Your task to perform on an android device: Clear all items from cart on target. Add "macbook pro 15 inch" to the cart on target Image 0: 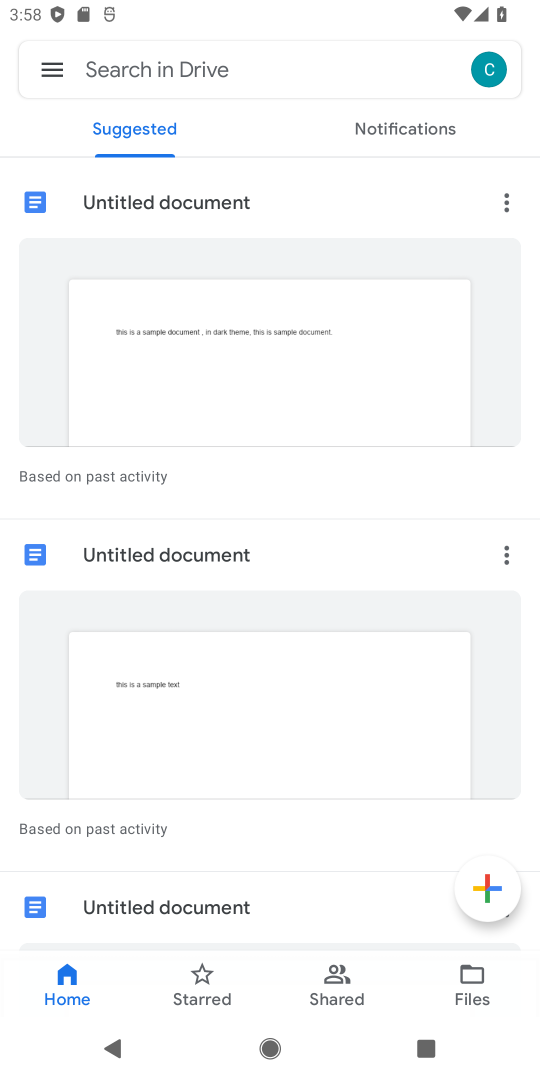
Step 0: press home button
Your task to perform on an android device: Clear all items from cart on target. Add "macbook pro 15 inch" to the cart on target Image 1: 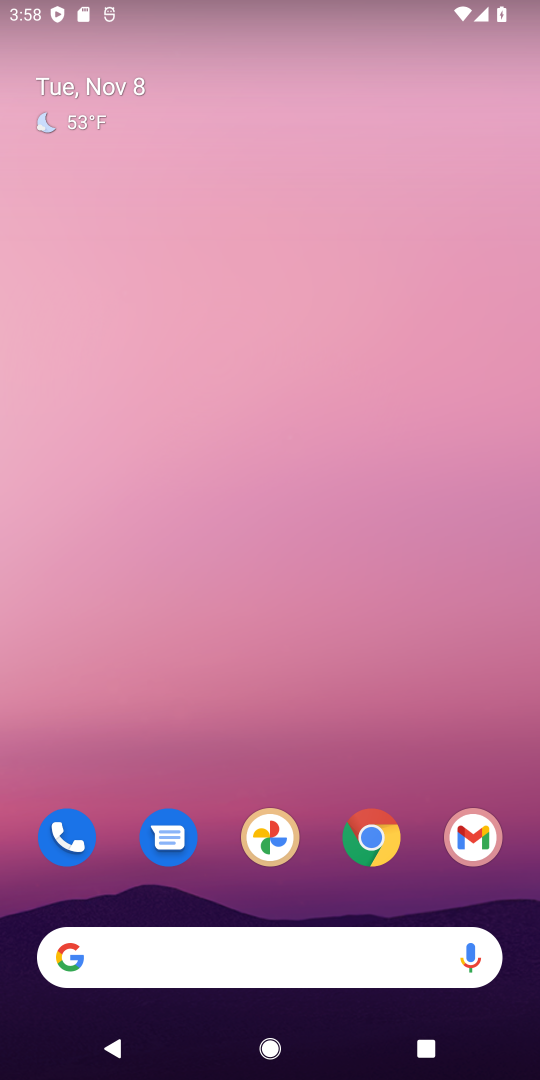
Step 1: click (380, 843)
Your task to perform on an android device: Clear all items from cart on target. Add "macbook pro 15 inch" to the cart on target Image 2: 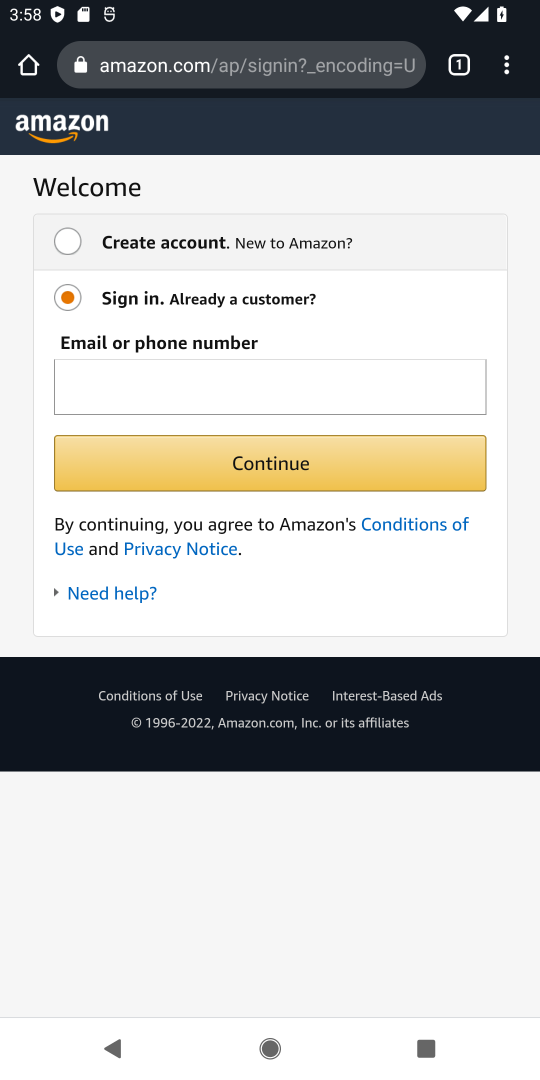
Step 2: click (140, 78)
Your task to perform on an android device: Clear all items from cart on target. Add "macbook pro 15 inch" to the cart on target Image 3: 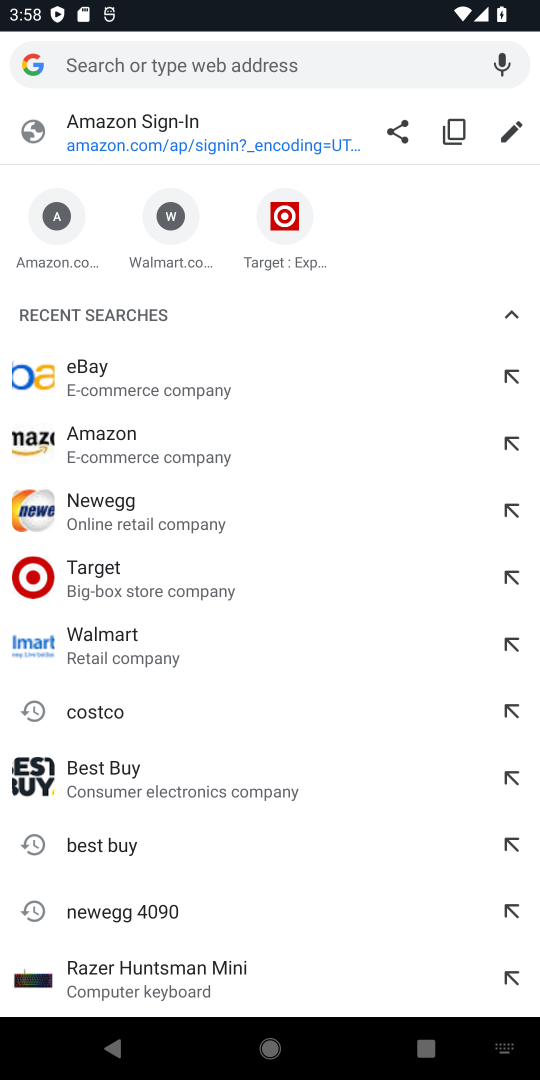
Step 3: click (121, 594)
Your task to perform on an android device: Clear all items from cart on target. Add "macbook pro 15 inch" to the cart on target Image 4: 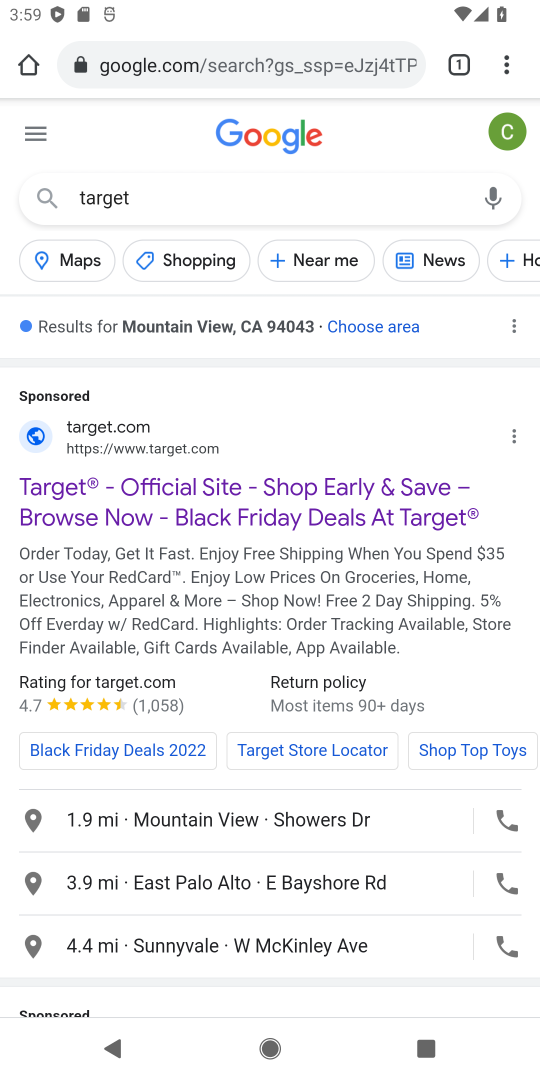
Step 4: click (46, 477)
Your task to perform on an android device: Clear all items from cart on target. Add "macbook pro 15 inch" to the cart on target Image 5: 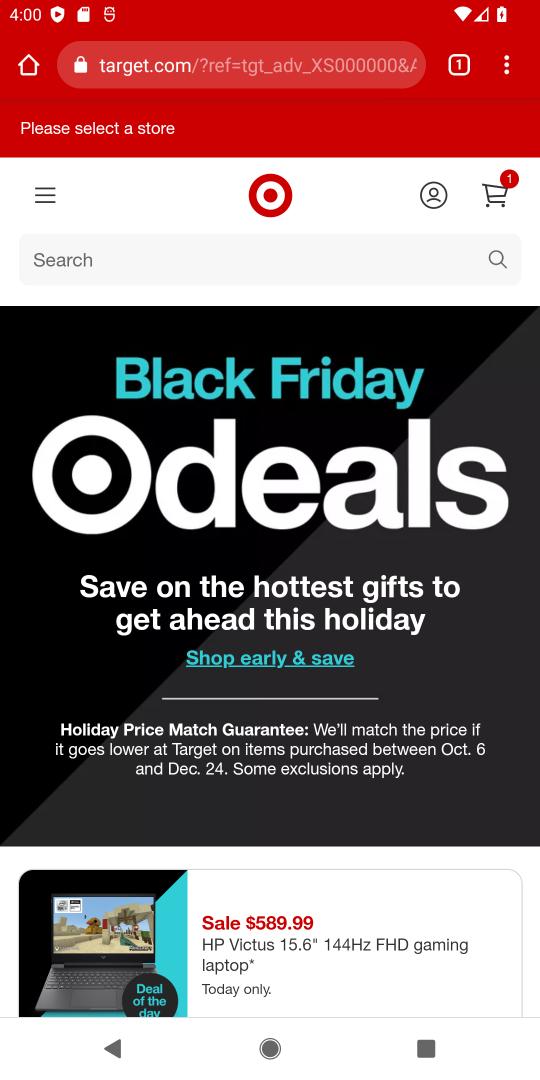
Step 5: click (504, 261)
Your task to perform on an android device: Clear all items from cart on target. Add "macbook pro 15 inch" to the cart on target Image 6: 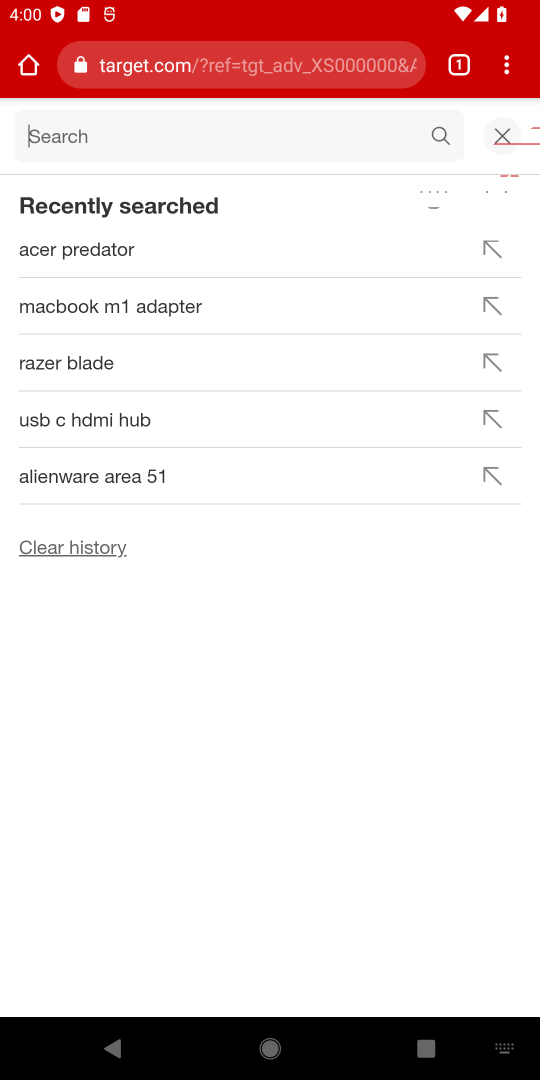
Step 6: type "macbook pro 15"
Your task to perform on an android device: Clear all items from cart on target. Add "macbook pro 15 inch" to the cart on target Image 7: 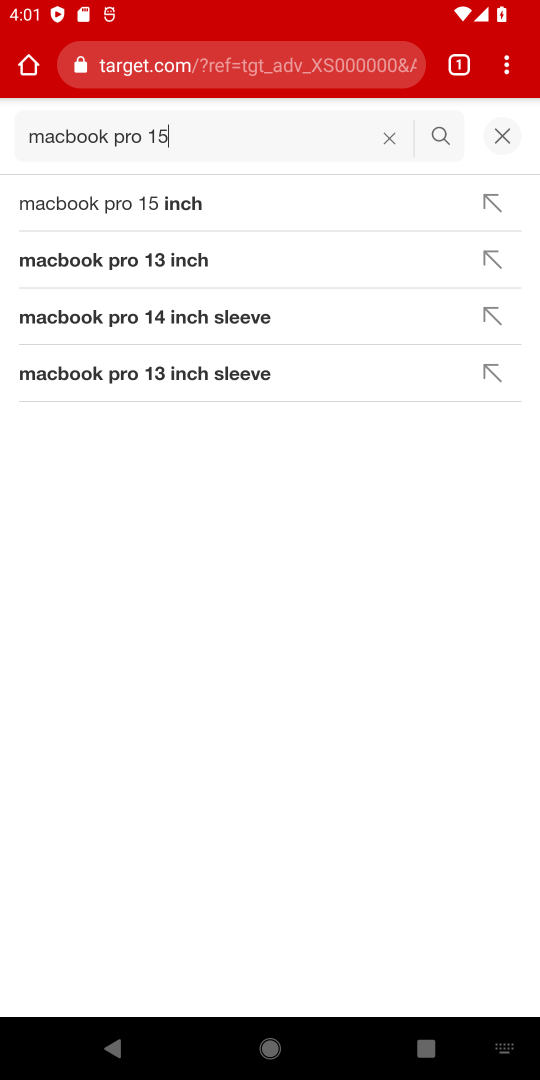
Step 7: click (85, 206)
Your task to perform on an android device: Clear all items from cart on target. Add "macbook pro 15 inch" to the cart on target Image 8: 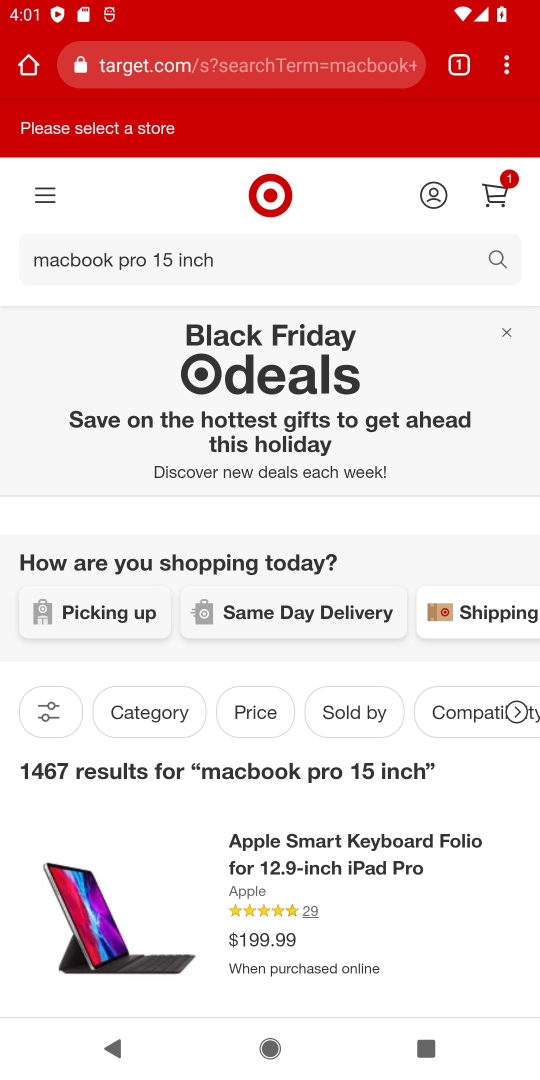
Step 8: drag from (239, 839) to (153, 239)
Your task to perform on an android device: Clear all items from cart on target. Add "macbook pro 15 inch" to the cart on target Image 9: 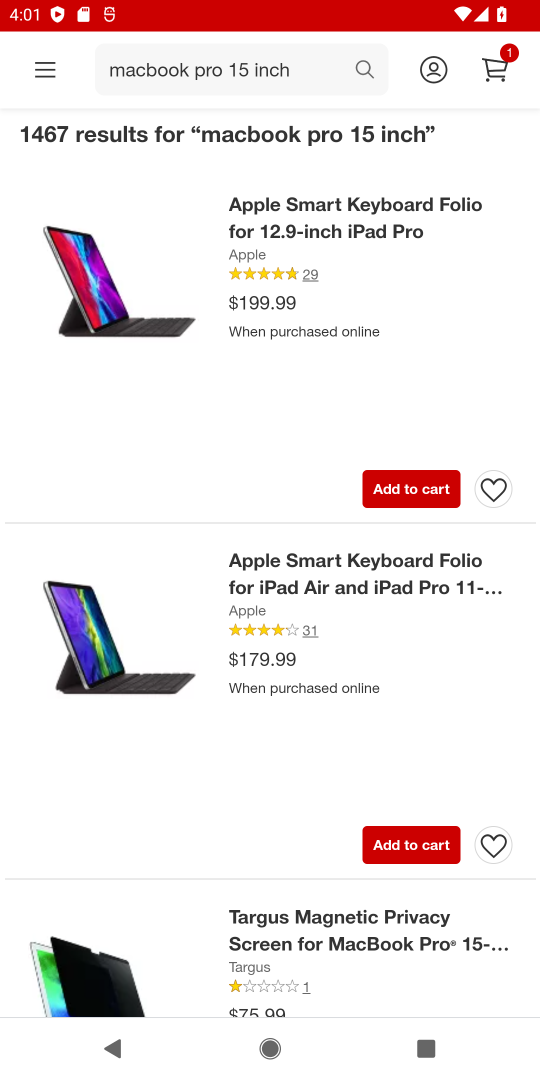
Step 9: click (271, 550)
Your task to perform on an android device: Clear all items from cart on target. Add "macbook pro 15 inch" to the cart on target Image 10: 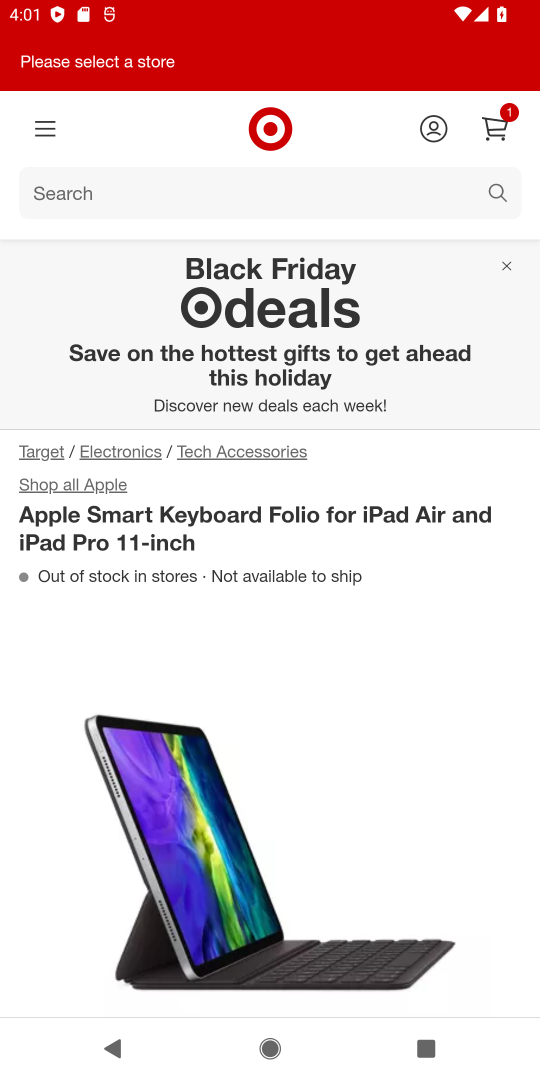
Step 10: drag from (210, 769) to (225, 140)
Your task to perform on an android device: Clear all items from cart on target. Add "macbook pro 15 inch" to the cart on target Image 11: 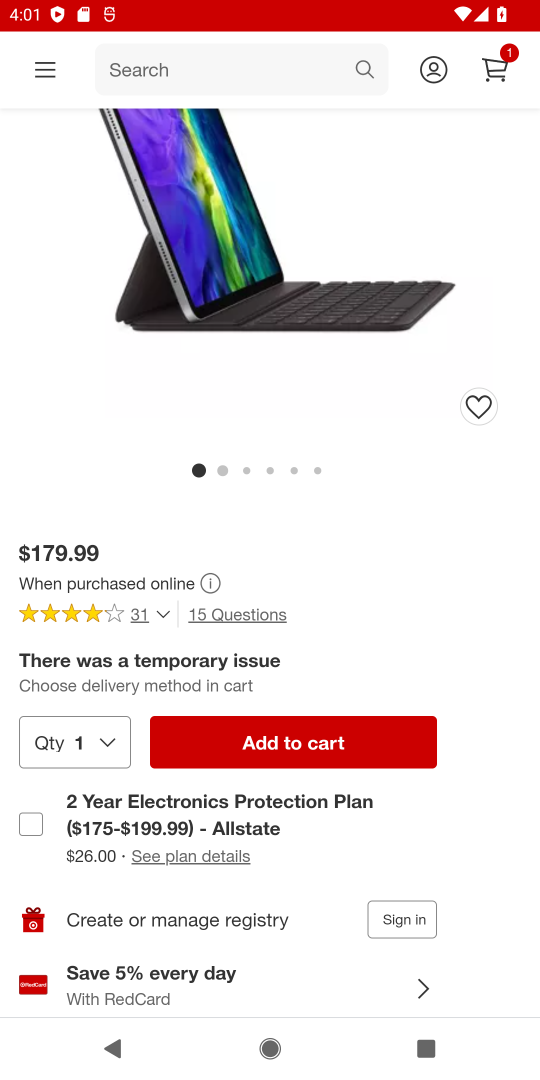
Step 11: click (347, 753)
Your task to perform on an android device: Clear all items from cart on target. Add "macbook pro 15 inch" to the cart on target Image 12: 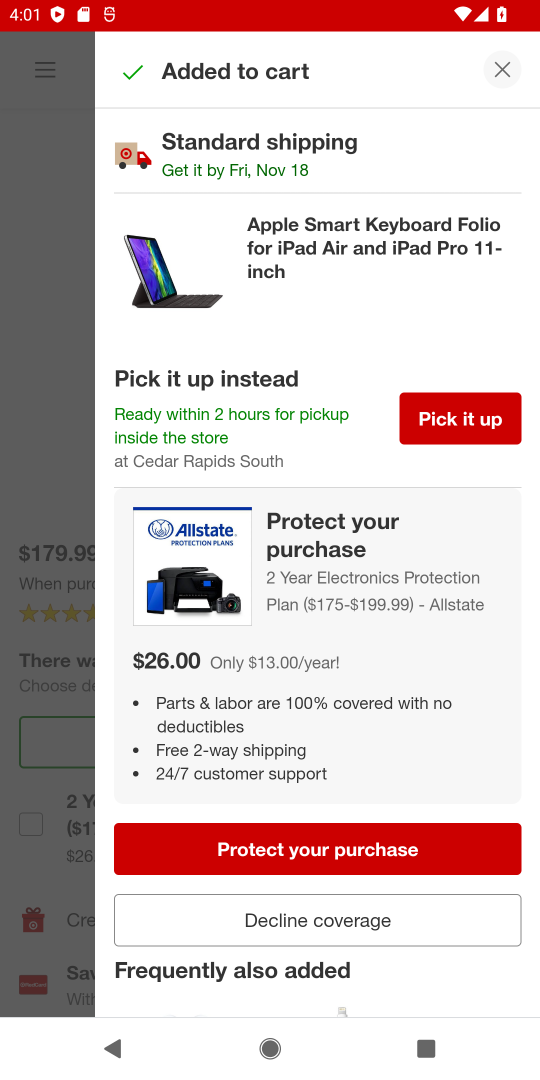
Step 12: click (227, 850)
Your task to perform on an android device: Clear all items from cart on target. Add "macbook pro 15 inch" to the cart on target Image 13: 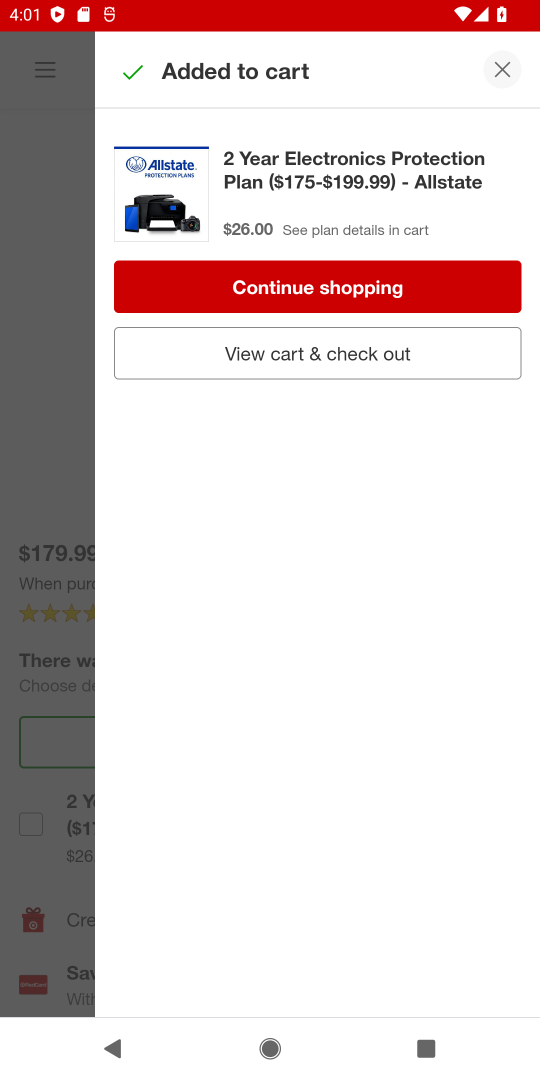
Step 13: click (274, 354)
Your task to perform on an android device: Clear all items from cart on target. Add "macbook pro 15 inch" to the cart on target Image 14: 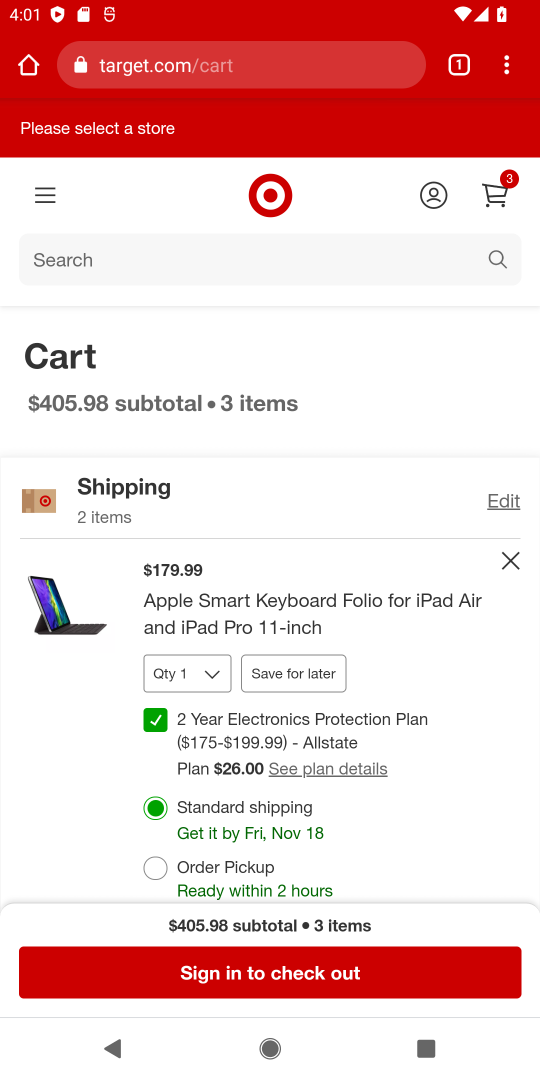
Step 14: drag from (405, 791) to (492, 410)
Your task to perform on an android device: Clear all items from cart on target. Add "macbook pro 15 inch" to the cart on target Image 15: 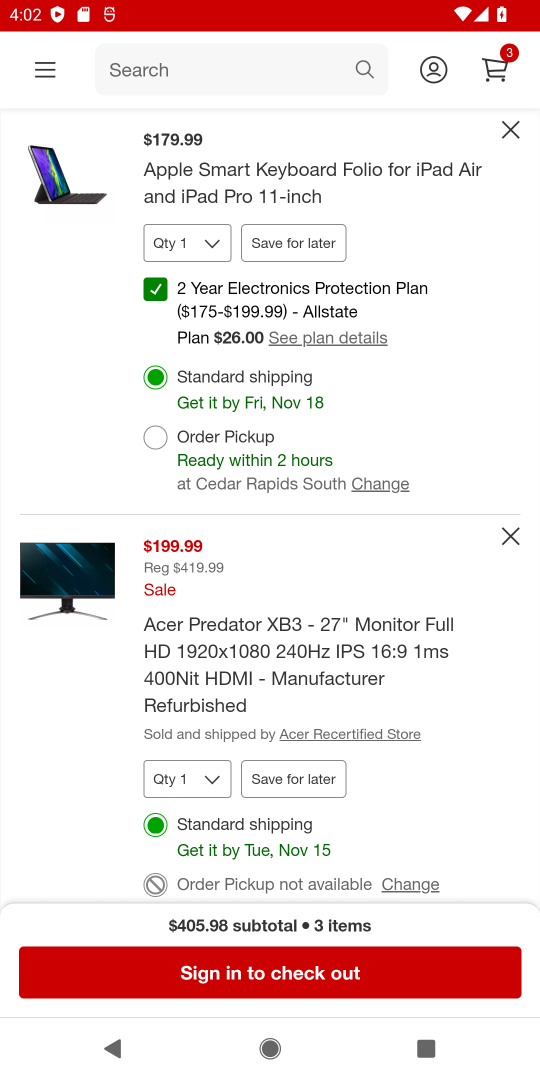
Step 15: click (512, 129)
Your task to perform on an android device: Clear all items from cart on target. Add "macbook pro 15 inch" to the cart on target Image 16: 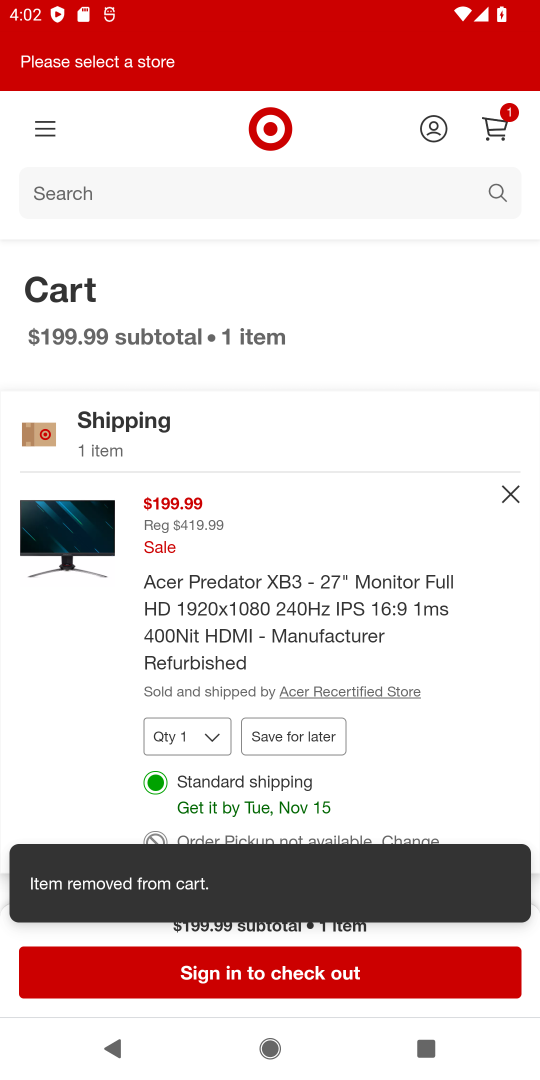
Step 16: click (506, 496)
Your task to perform on an android device: Clear all items from cart on target. Add "macbook pro 15 inch" to the cart on target Image 17: 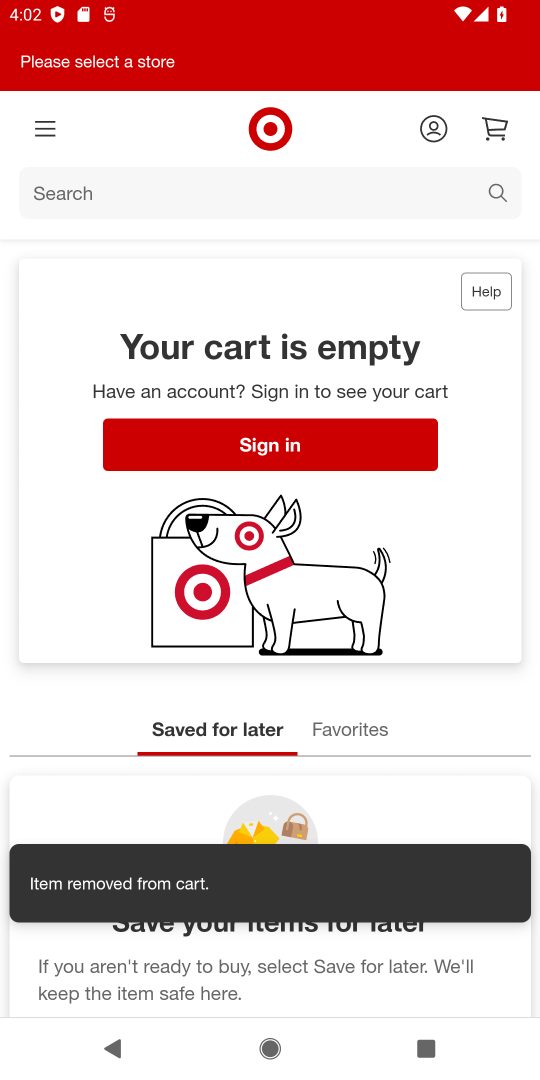
Step 17: click (424, 198)
Your task to perform on an android device: Clear all items from cart on target. Add "macbook pro 15 inch" to the cart on target Image 18: 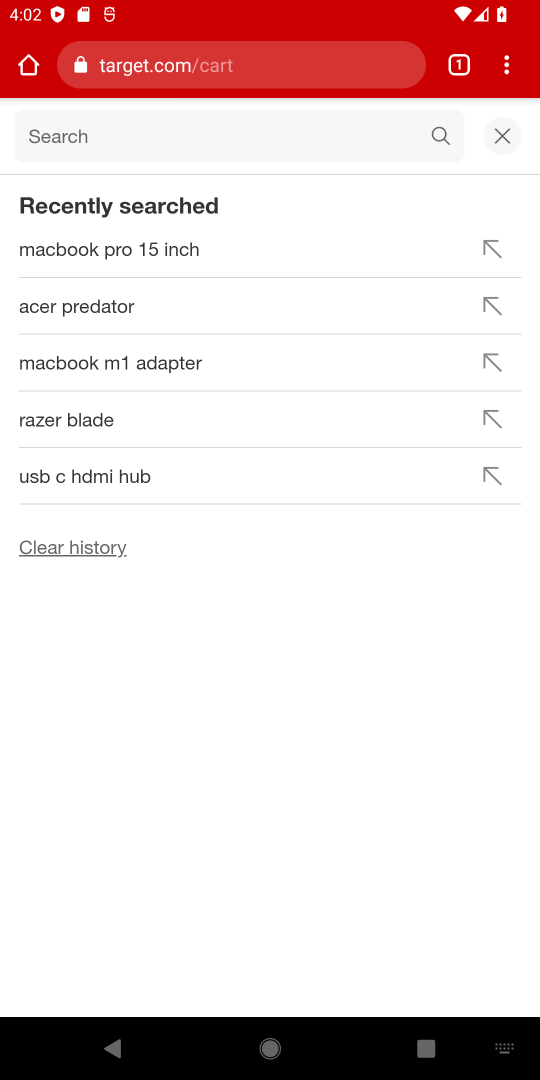
Step 18: click (86, 248)
Your task to perform on an android device: Clear all items from cart on target. Add "macbook pro 15 inch" to the cart on target Image 19: 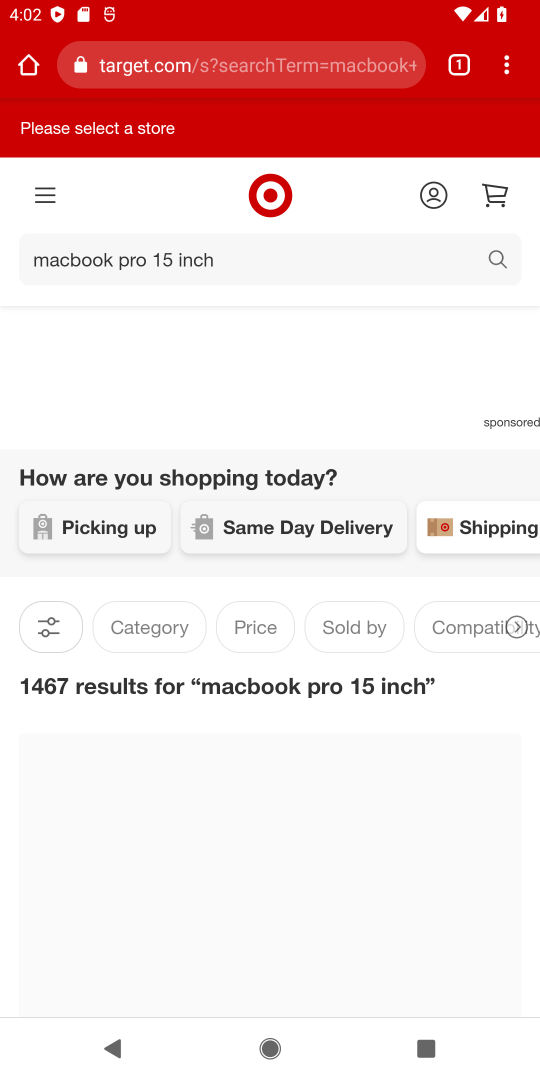
Step 19: drag from (179, 801) to (327, 237)
Your task to perform on an android device: Clear all items from cart on target. Add "macbook pro 15 inch" to the cart on target Image 20: 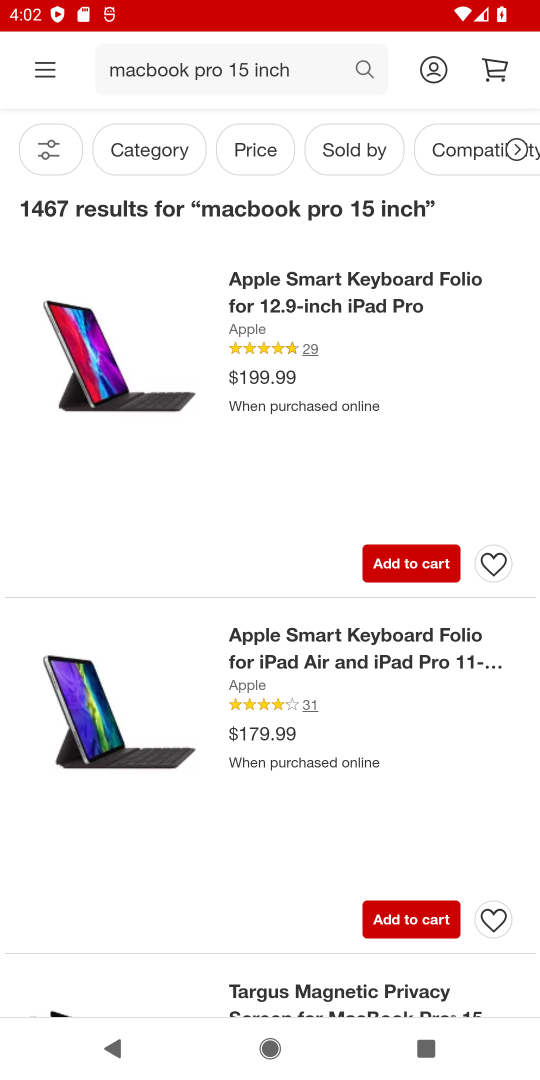
Step 20: drag from (285, 874) to (333, 225)
Your task to perform on an android device: Clear all items from cart on target. Add "macbook pro 15 inch" to the cart on target Image 21: 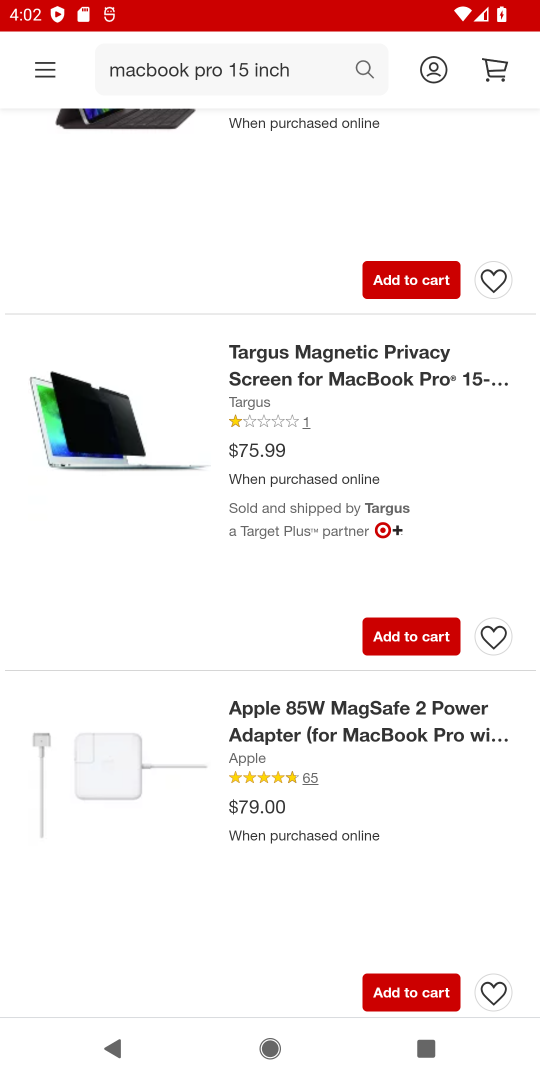
Step 21: drag from (228, 866) to (283, 303)
Your task to perform on an android device: Clear all items from cart on target. Add "macbook pro 15 inch" to the cart on target Image 22: 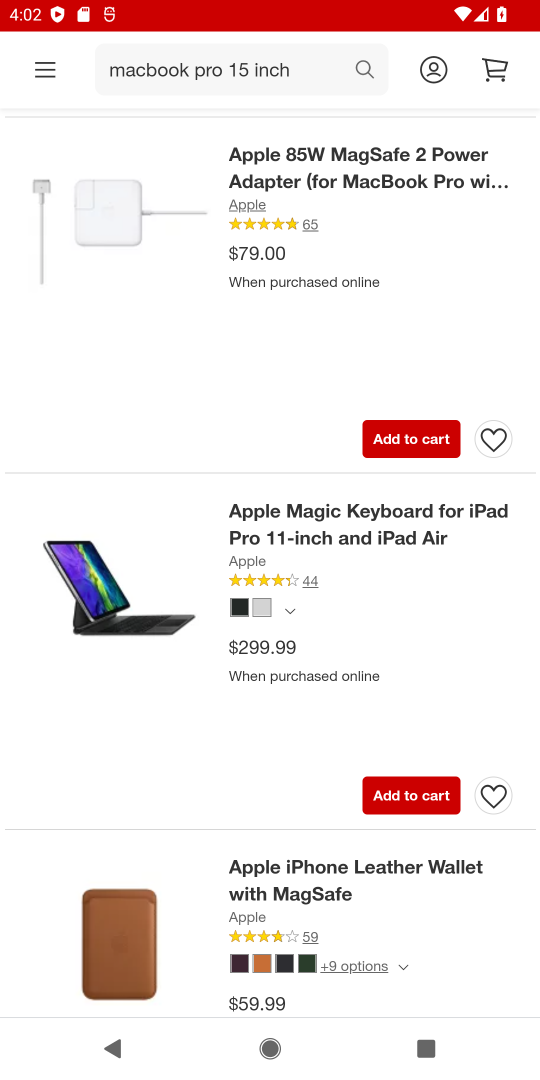
Step 22: drag from (283, 1000) to (328, 450)
Your task to perform on an android device: Clear all items from cart on target. Add "macbook pro 15 inch" to the cart on target Image 23: 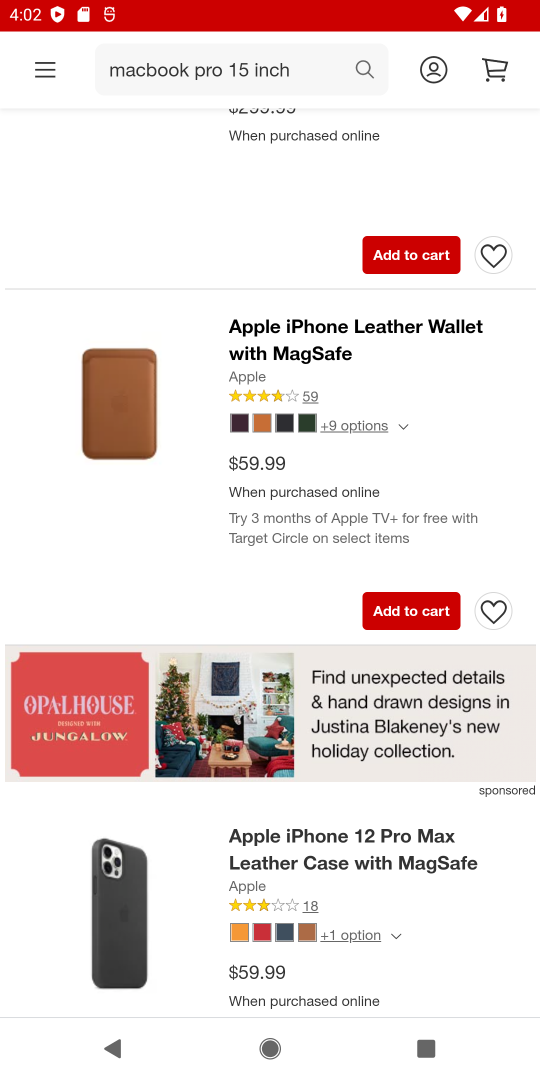
Step 23: drag from (295, 957) to (377, 399)
Your task to perform on an android device: Clear all items from cart on target. Add "macbook pro 15 inch" to the cart on target Image 24: 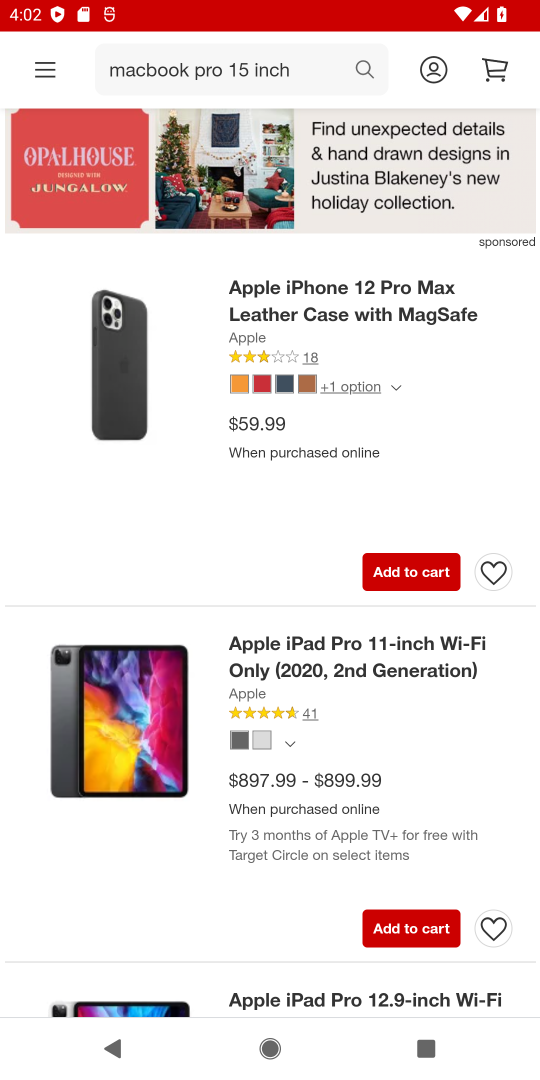
Step 24: drag from (306, 707) to (385, 124)
Your task to perform on an android device: Clear all items from cart on target. Add "macbook pro 15 inch" to the cart on target Image 25: 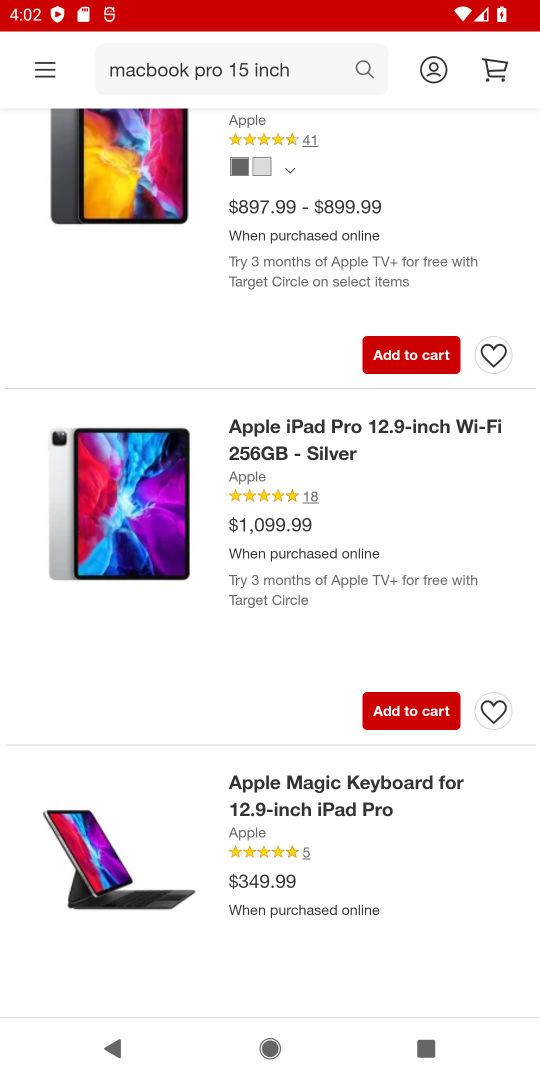
Step 25: click (326, 783)
Your task to perform on an android device: Clear all items from cart on target. Add "macbook pro 15 inch" to the cart on target Image 26: 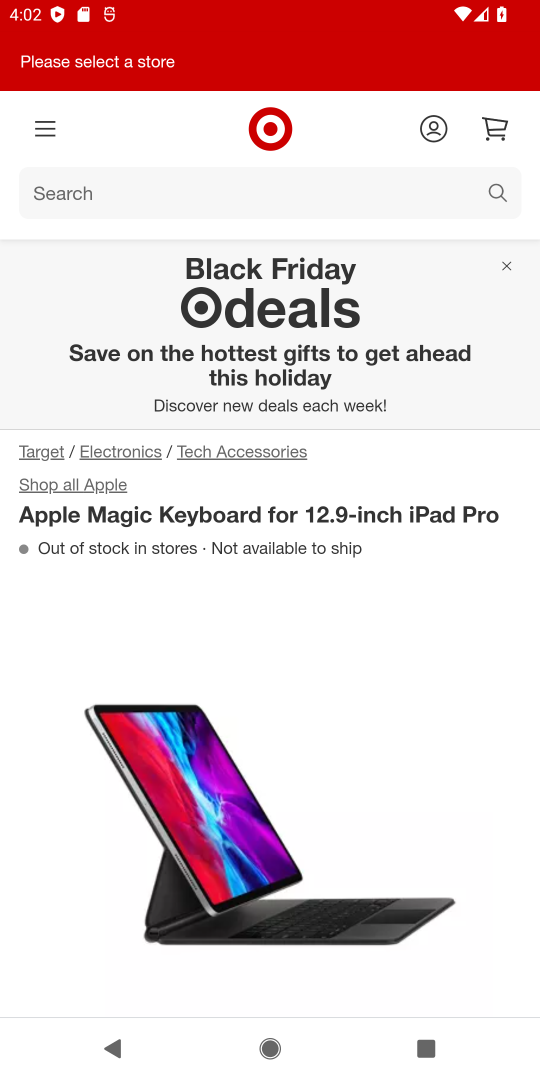
Step 26: drag from (92, 748) to (267, 402)
Your task to perform on an android device: Clear all items from cart on target. Add "macbook pro 15 inch" to the cart on target Image 27: 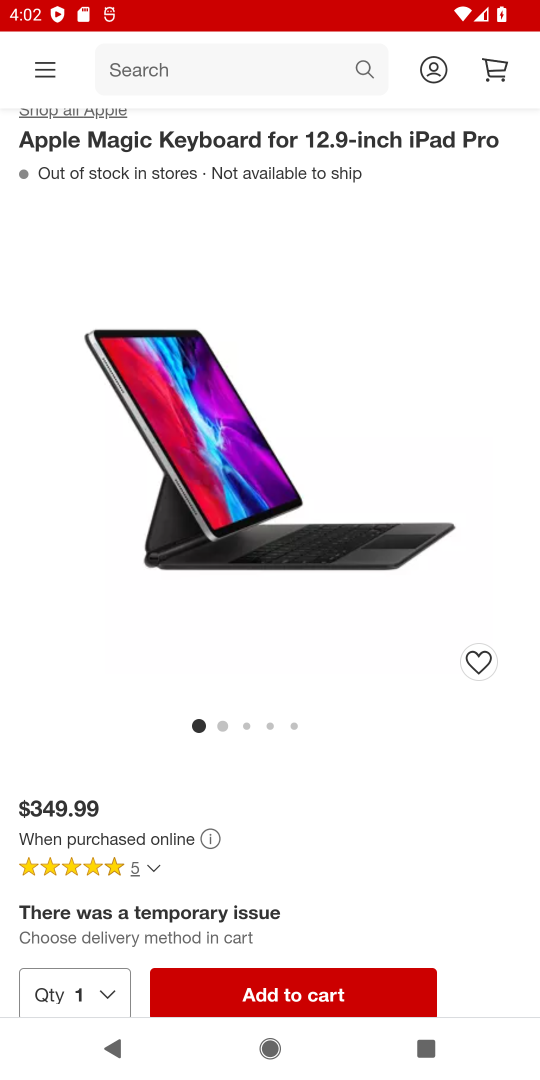
Step 27: click (275, 1008)
Your task to perform on an android device: Clear all items from cart on target. Add "macbook pro 15 inch" to the cart on target Image 28: 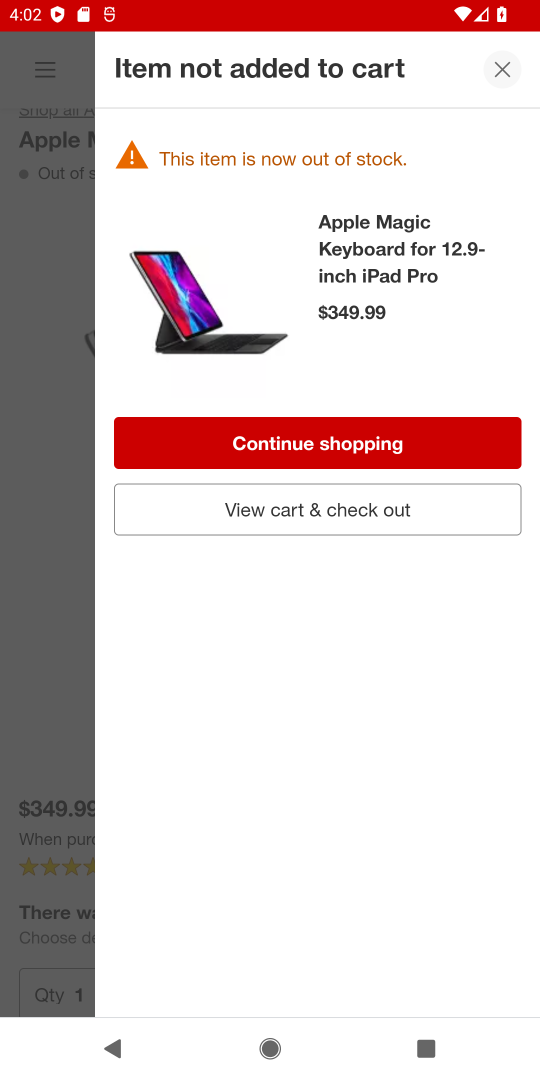
Step 28: click (287, 504)
Your task to perform on an android device: Clear all items from cart on target. Add "macbook pro 15 inch" to the cart on target Image 29: 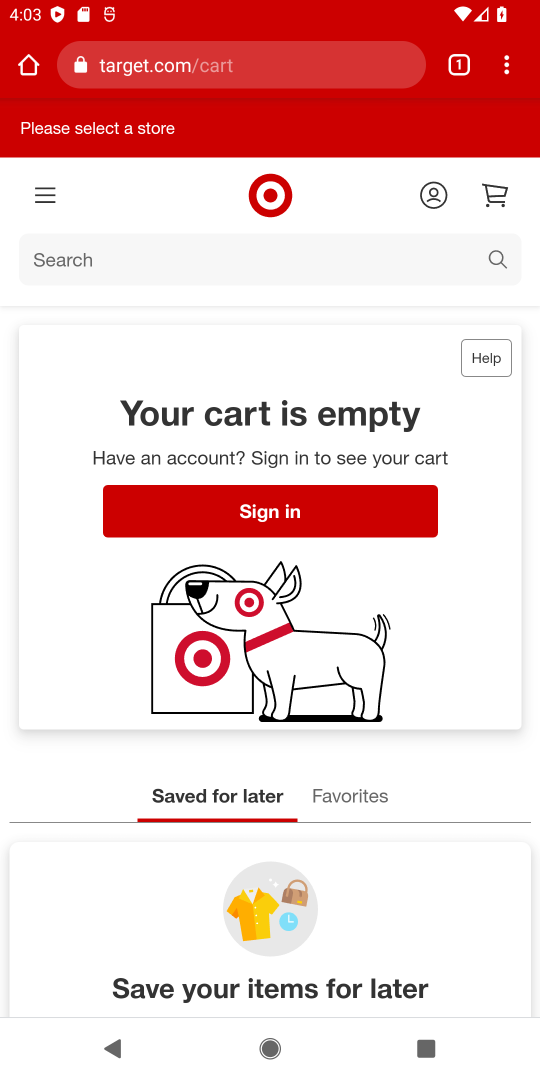
Step 29: press back button
Your task to perform on an android device: Clear all items from cart on target. Add "macbook pro 15 inch" to the cart on target Image 30: 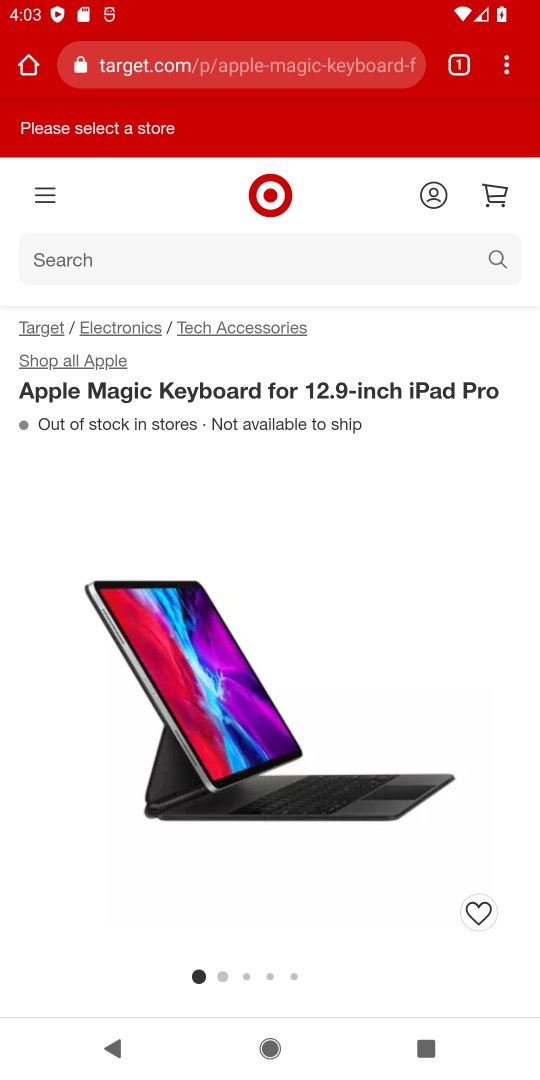
Step 30: drag from (80, 746) to (260, 155)
Your task to perform on an android device: Clear all items from cart on target. Add "macbook pro 15 inch" to the cart on target Image 31: 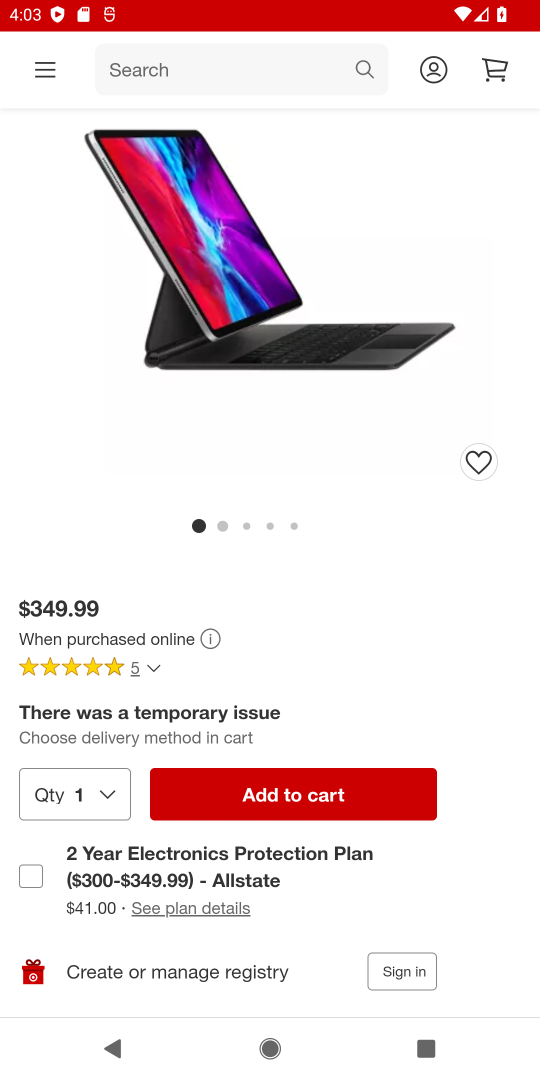
Step 31: click (324, 797)
Your task to perform on an android device: Clear all items from cart on target. Add "macbook pro 15 inch" to the cart on target Image 32: 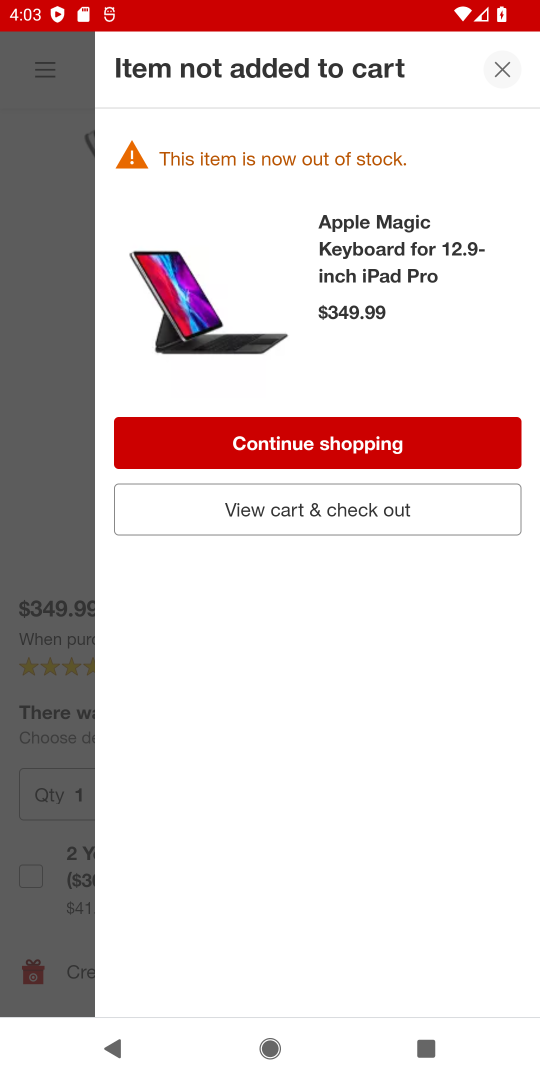
Step 32: click (500, 74)
Your task to perform on an android device: Clear all items from cart on target. Add "macbook pro 15 inch" to the cart on target Image 33: 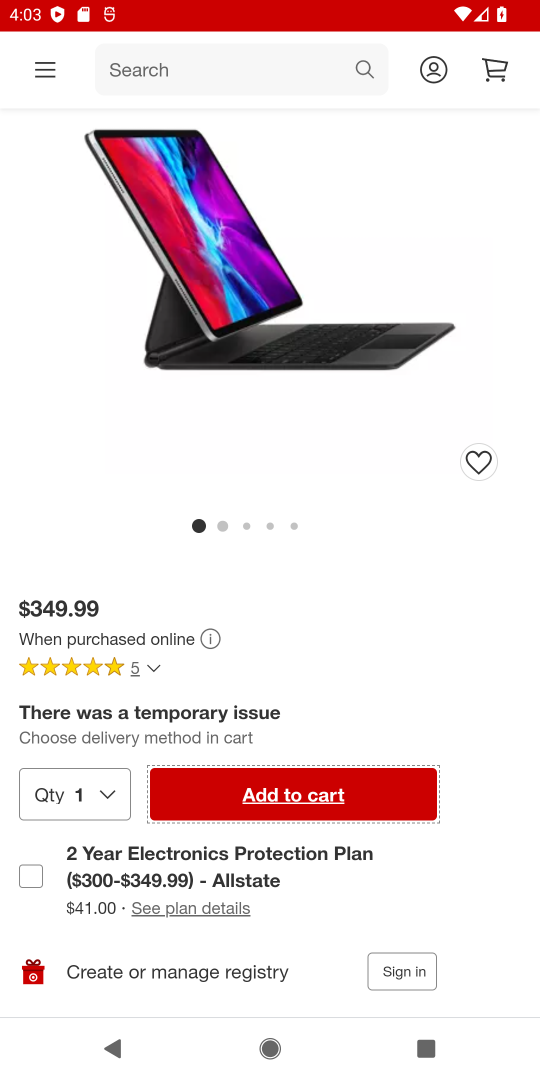
Step 33: press back button
Your task to perform on an android device: Clear all items from cart on target. Add "macbook pro 15 inch" to the cart on target Image 34: 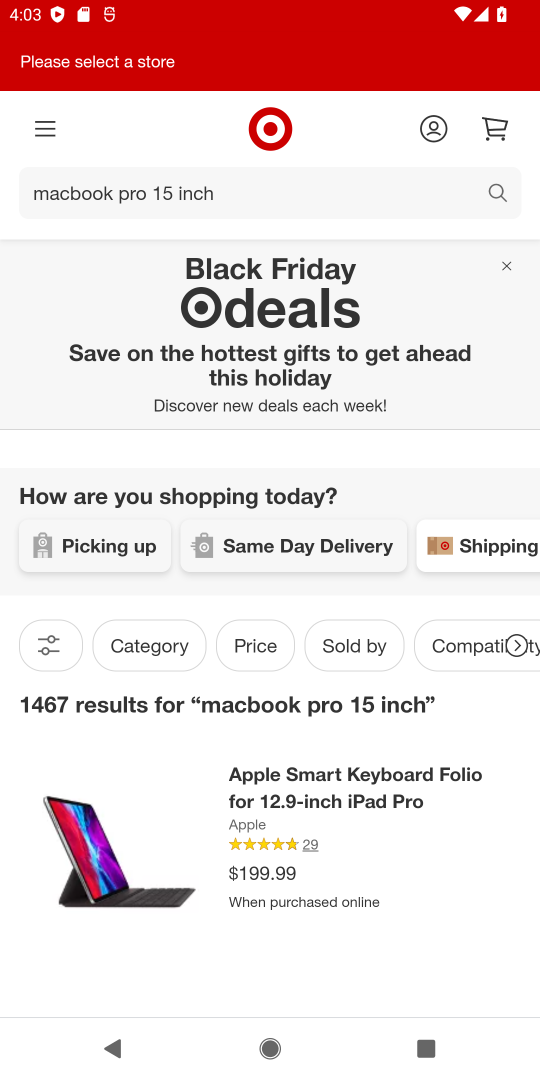
Step 34: drag from (405, 860) to (534, 362)
Your task to perform on an android device: Clear all items from cart on target. Add "macbook pro 15 inch" to the cart on target Image 35: 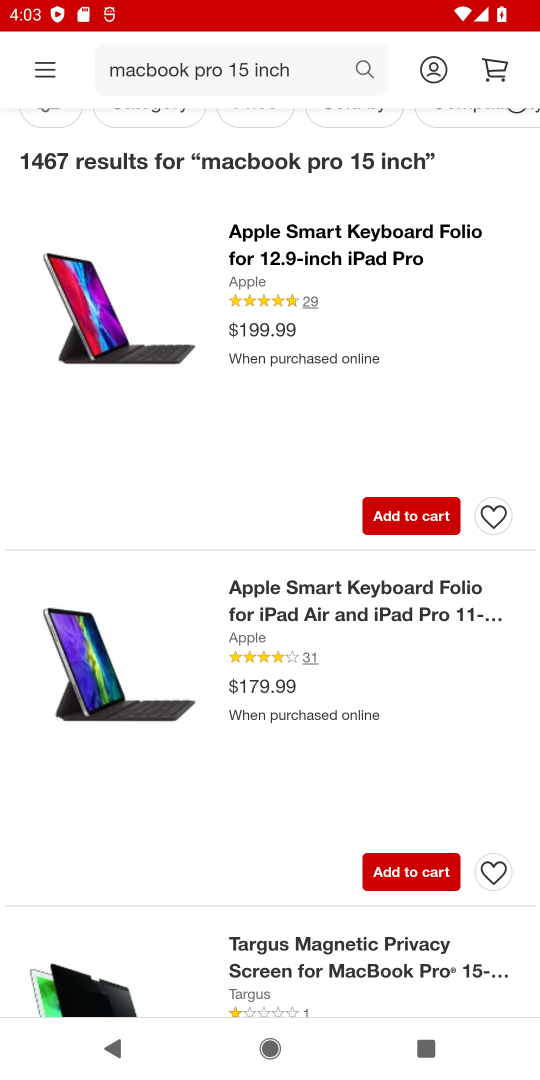
Step 35: click (270, 582)
Your task to perform on an android device: Clear all items from cart on target. Add "macbook pro 15 inch" to the cart on target Image 36: 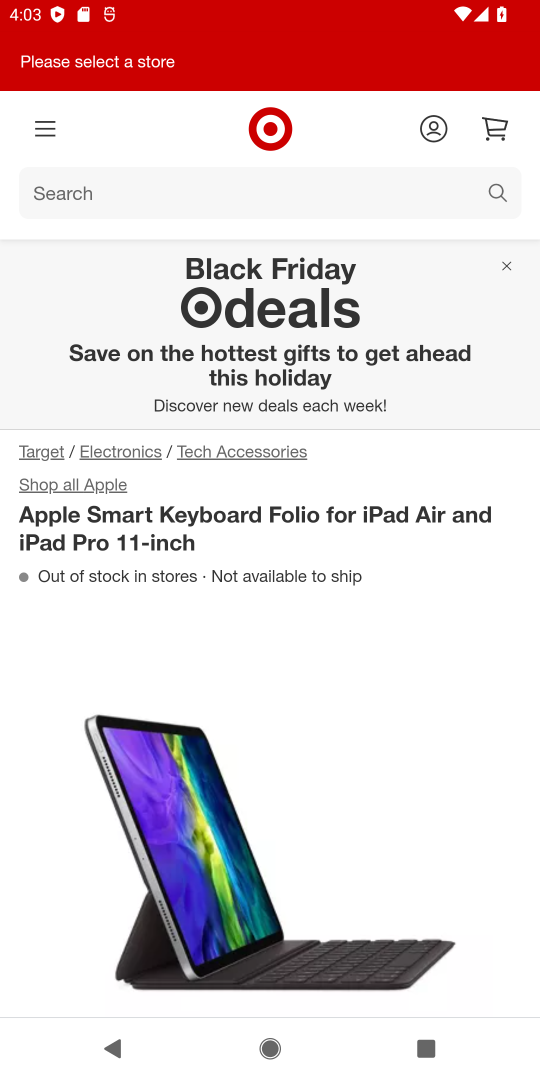
Step 36: drag from (322, 827) to (483, 389)
Your task to perform on an android device: Clear all items from cart on target. Add "macbook pro 15 inch" to the cart on target Image 37: 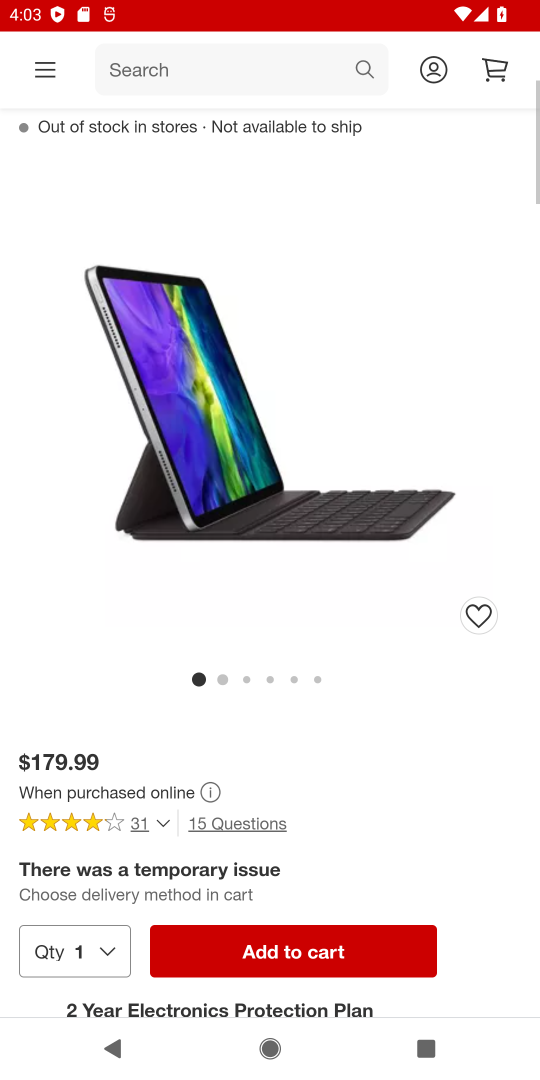
Step 37: drag from (317, 817) to (390, 474)
Your task to perform on an android device: Clear all items from cart on target. Add "macbook pro 15 inch" to the cart on target Image 38: 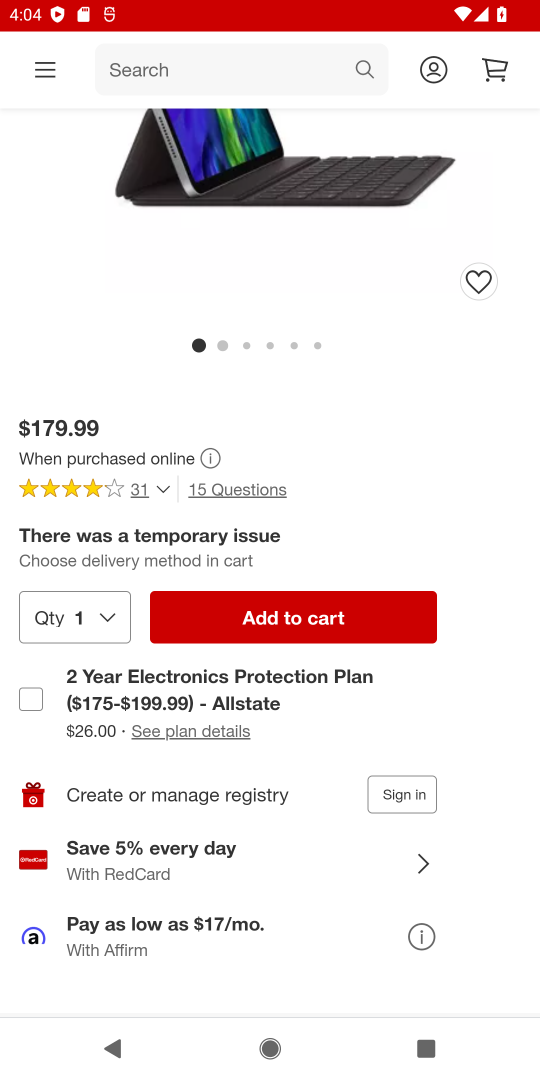
Step 38: click (339, 623)
Your task to perform on an android device: Clear all items from cart on target. Add "macbook pro 15 inch" to the cart on target Image 39: 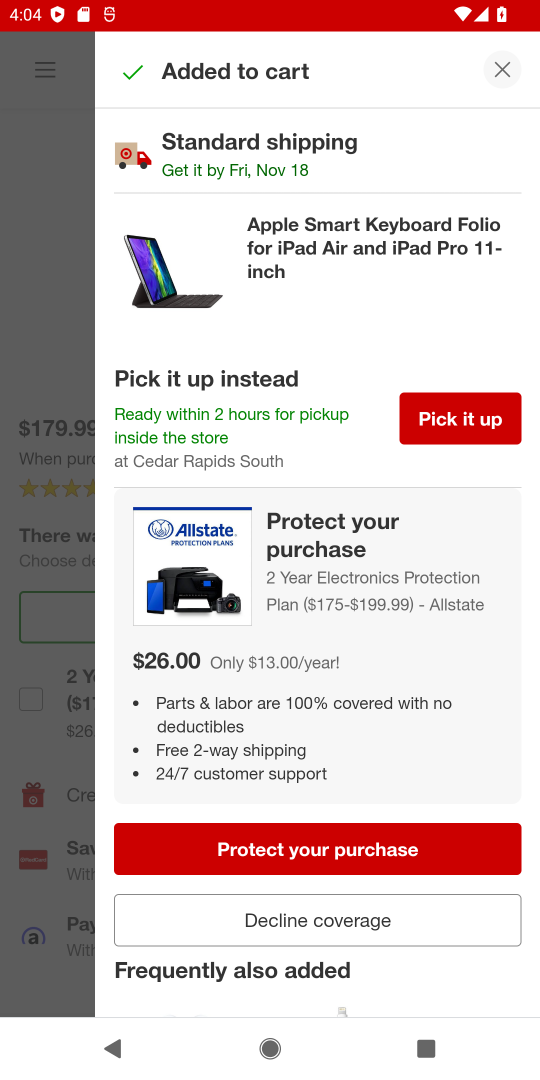
Step 39: click (415, 864)
Your task to perform on an android device: Clear all items from cart on target. Add "macbook pro 15 inch" to the cart on target Image 40: 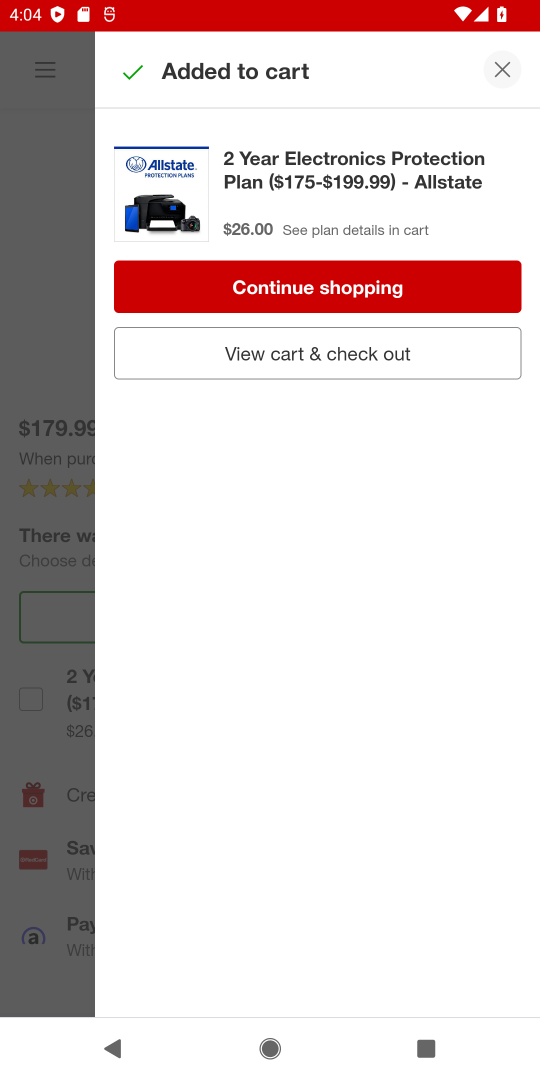
Step 40: click (295, 355)
Your task to perform on an android device: Clear all items from cart on target. Add "macbook pro 15 inch" to the cart on target Image 41: 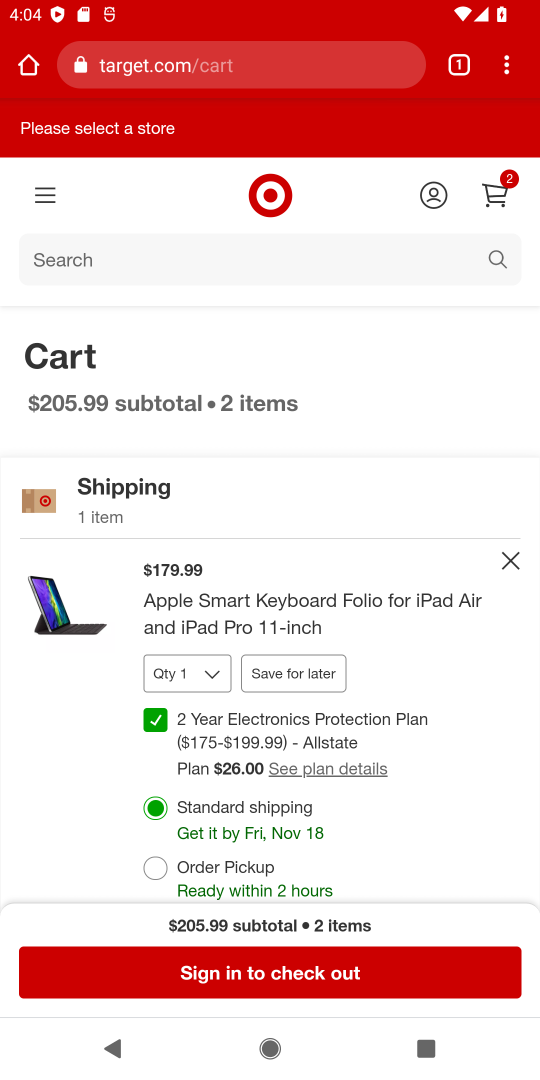
Step 41: task complete